Your task to perform on an android device: Open Youtube and go to the subscriptions tab Image 0: 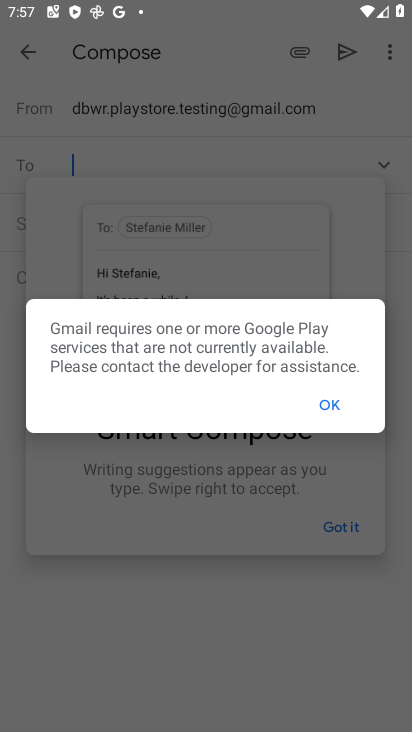
Step 0: press home button
Your task to perform on an android device: Open Youtube and go to the subscriptions tab Image 1: 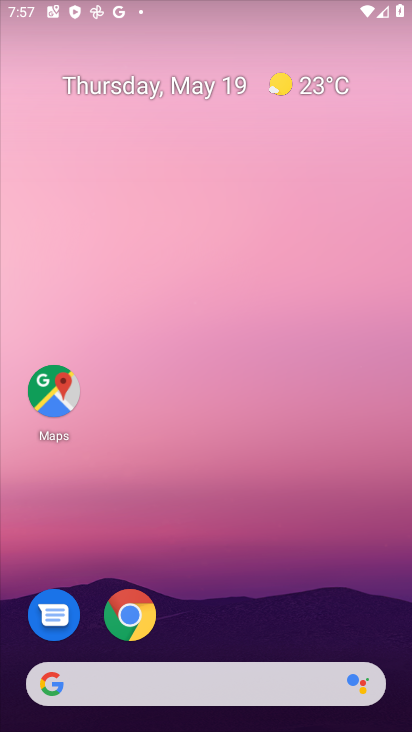
Step 1: drag from (348, 653) to (324, 106)
Your task to perform on an android device: Open Youtube and go to the subscriptions tab Image 2: 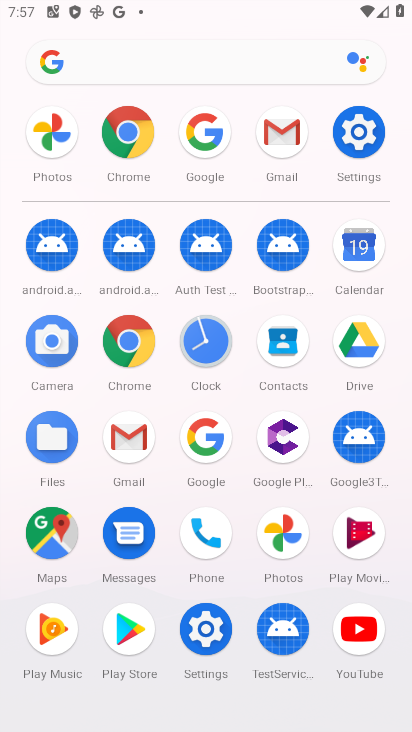
Step 2: click (358, 641)
Your task to perform on an android device: Open Youtube and go to the subscriptions tab Image 3: 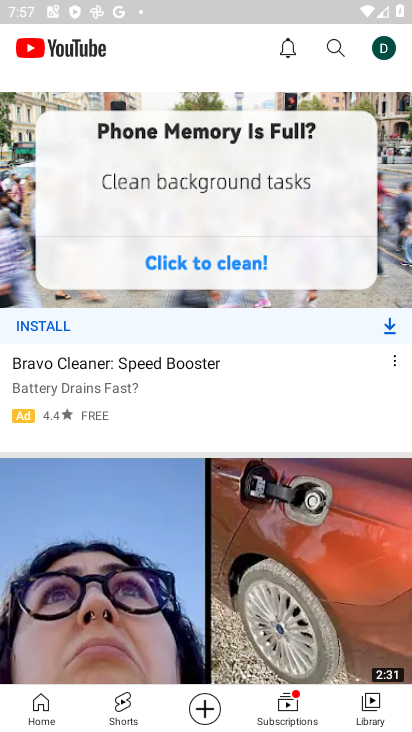
Step 3: click (285, 704)
Your task to perform on an android device: Open Youtube and go to the subscriptions tab Image 4: 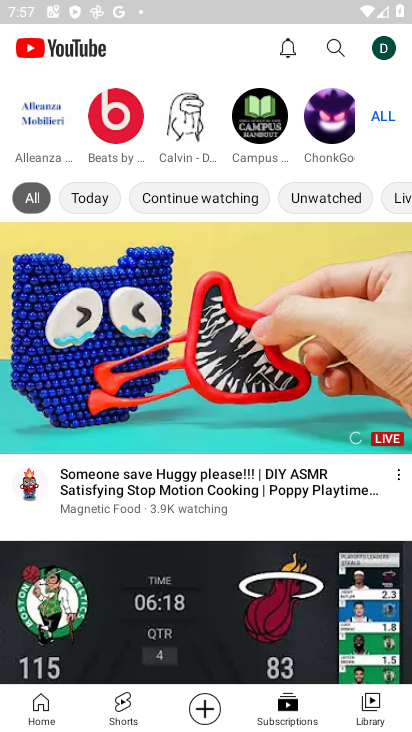
Step 4: task complete